Your task to perform on an android device: open chrome privacy settings Image 0: 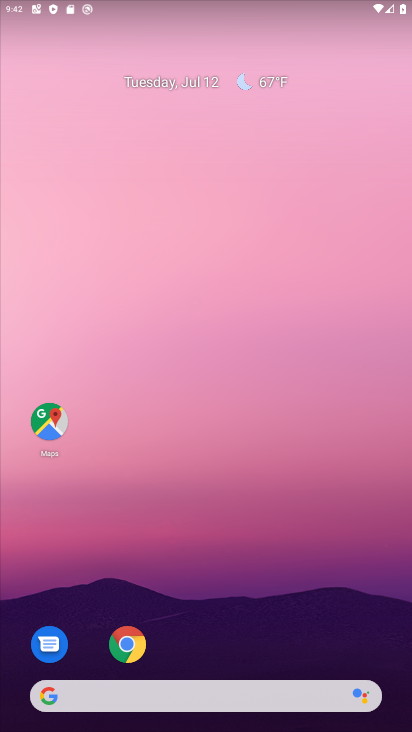
Step 0: drag from (224, 617) to (264, 199)
Your task to perform on an android device: open chrome privacy settings Image 1: 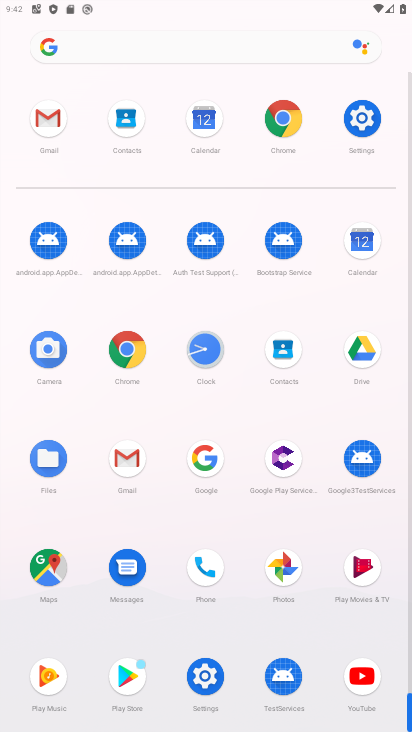
Step 1: click (204, 689)
Your task to perform on an android device: open chrome privacy settings Image 2: 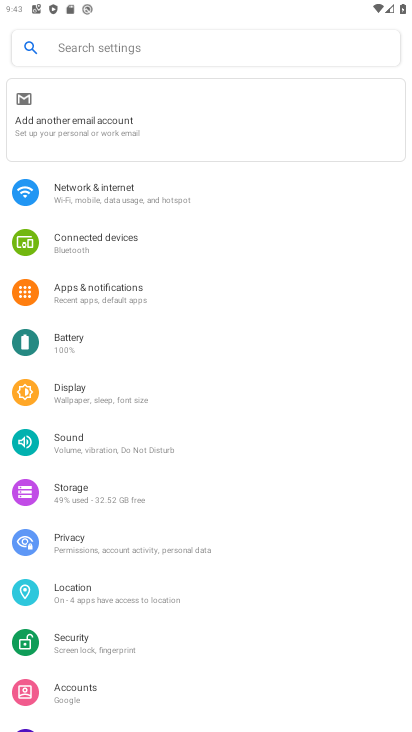
Step 2: press home button
Your task to perform on an android device: open chrome privacy settings Image 3: 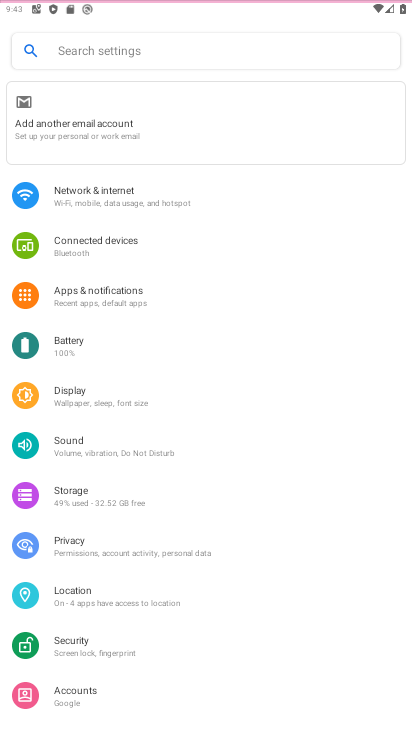
Step 3: press home button
Your task to perform on an android device: open chrome privacy settings Image 4: 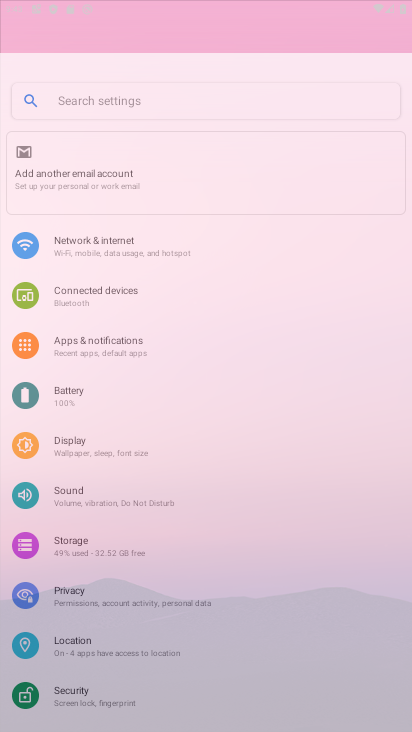
Step 4: drag from (188, 561) to (243, 183)
Your task to perform on an android device: open chrome privacy settings Image 5: 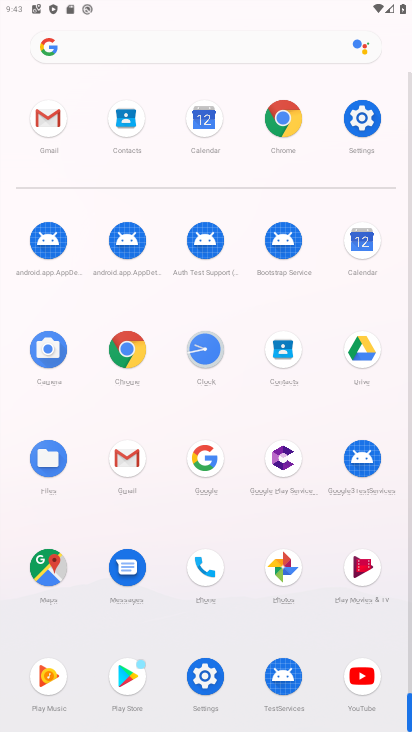
Step 5: click (279, 107)
Your task to perform on an android device: open chrome privacy settings Image 6: 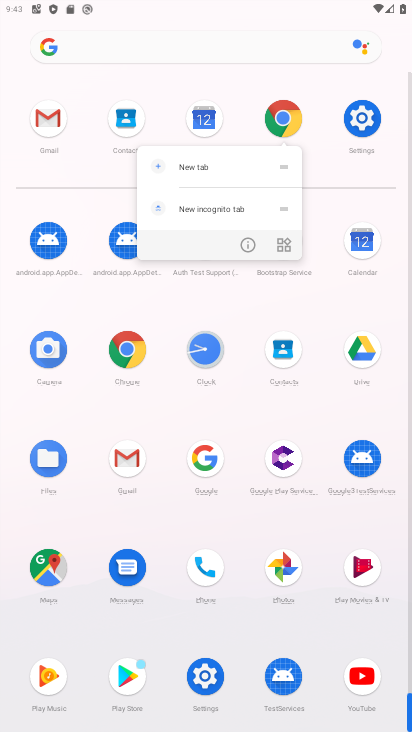
Step 6: click (245, 245)
Your task to perform on an android device: open chrome privacy settings Image 7: 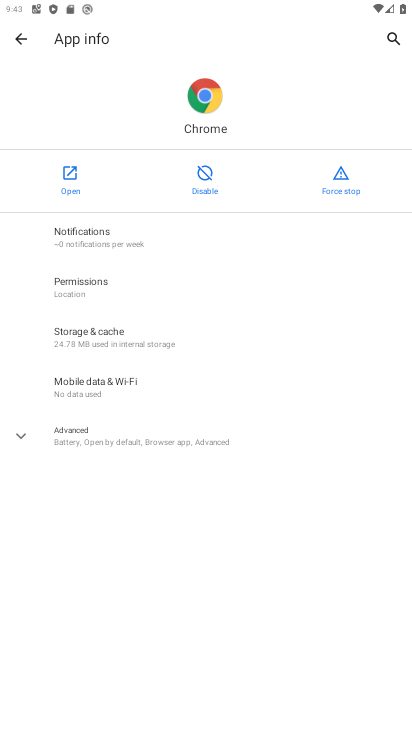
Step 7: click (79, 167)
Your task to perform on an android device: open chrome privacy settings Image 8: 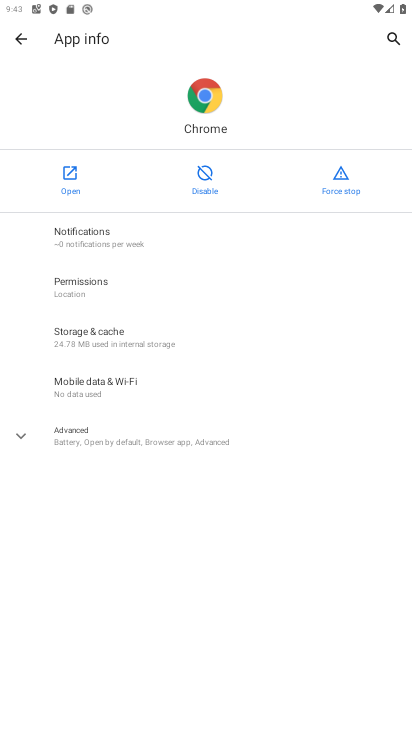
Step 8: click (78, 166)
Your task to perform on an android device: open chrome privacy settings Image 9: 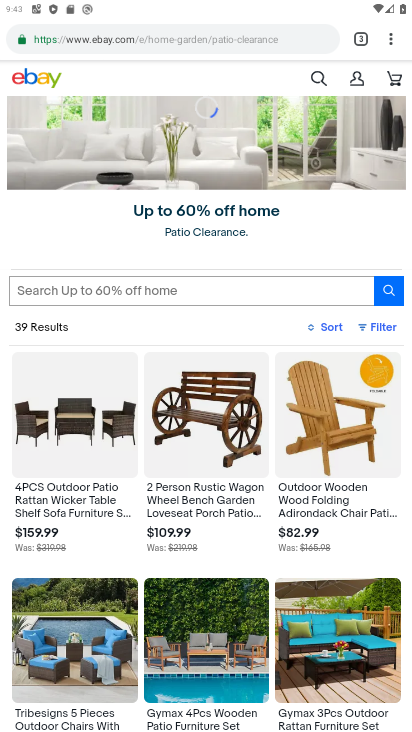
Step 9: click (392, 41)
Your task to perform on an android device: open chrome privacy settings Image 10: 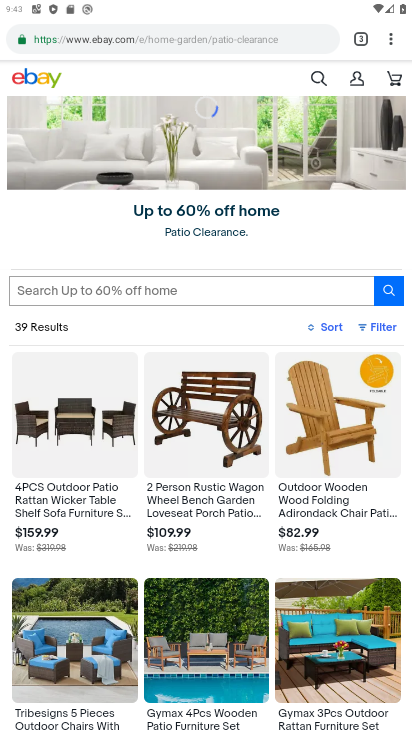
Step 10: click (396, 35)
Your task to perform on an android device: open chrome privacy settings Image 11: 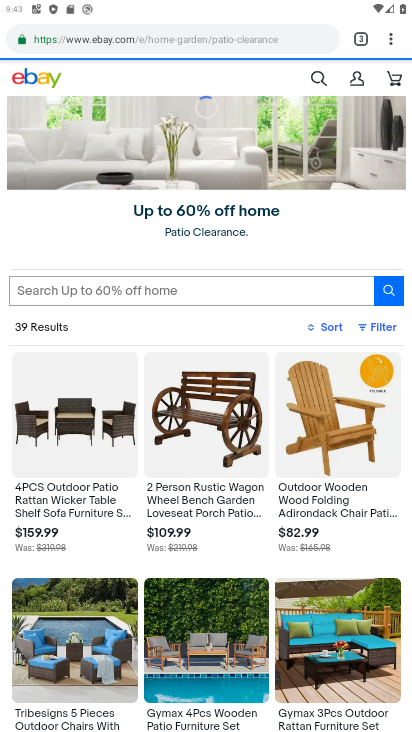
Step 11: click (395, 35)
Your task to perform on an android device: open chrome privacy settings Image 12: 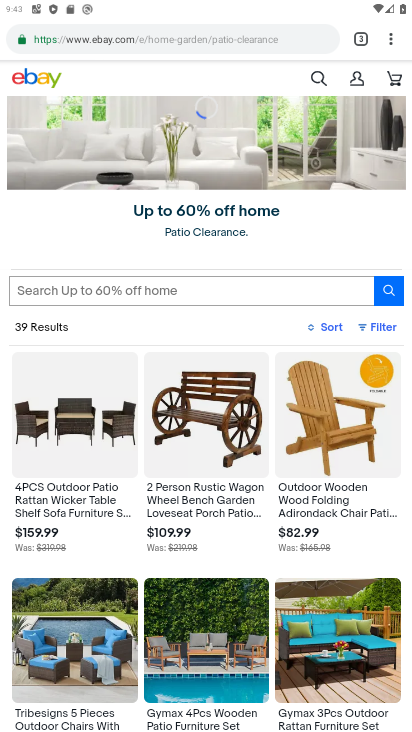
Step 12: click (393, 35)
Your task to perform on an android device: open chrome privacy settings Image 13: 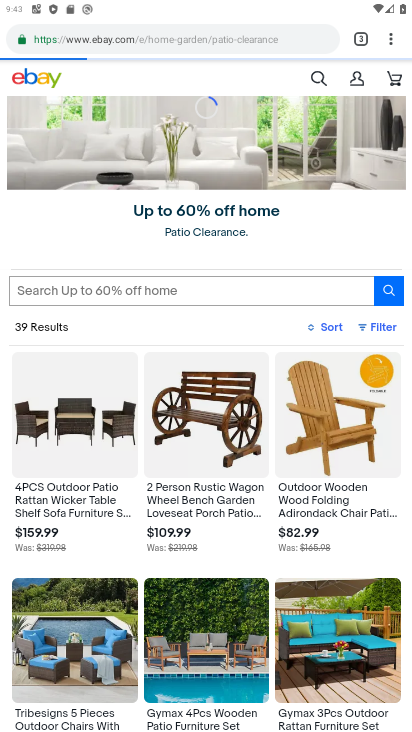
Step 13: drag from (393, 35) to (280, 511)
Your task to perform on an android device: open chrome privacy settings Image 14: 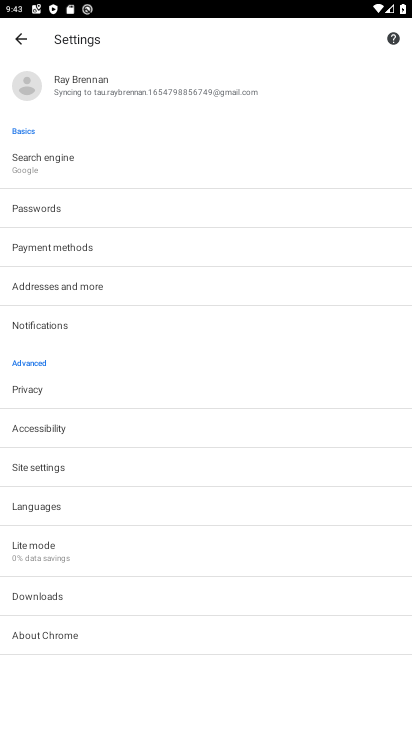
Step 14: drag from (179, 516) to (228, 140)
Your task to perform on an android device: open chrome privacy settings Image 15: 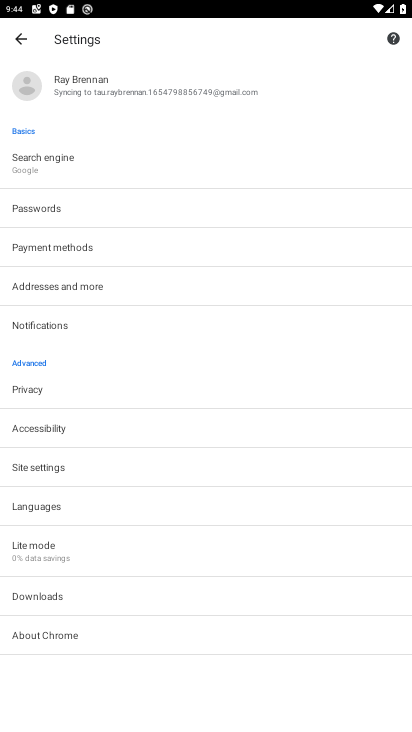
Step 15: drag from (192, 540) to (321, 86)
Your task to perform on an android device: open chrome privacy settings Image 16: 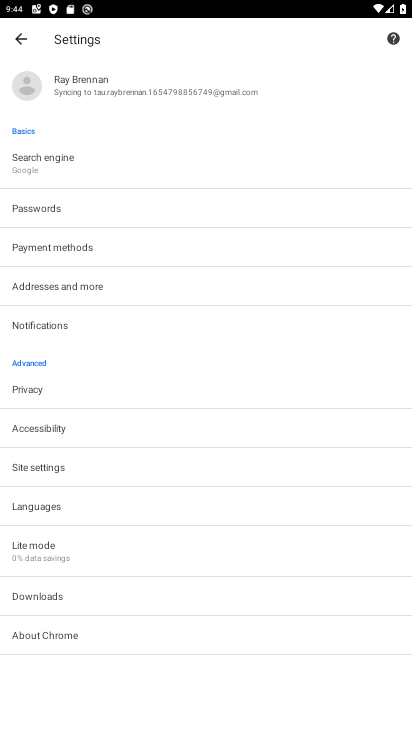
Step 16: click (31, 391)
Your task to perform on an android device: open chrome privacy settings Image 17: 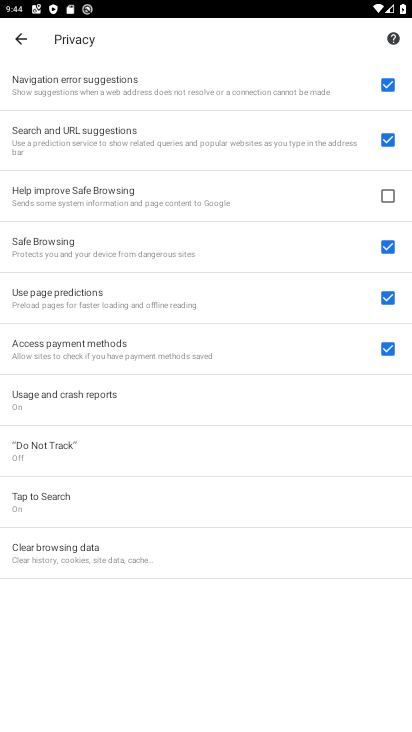
Step 17: task complete